Your task to perform on an android device: open chrome privacy settings Image 0: 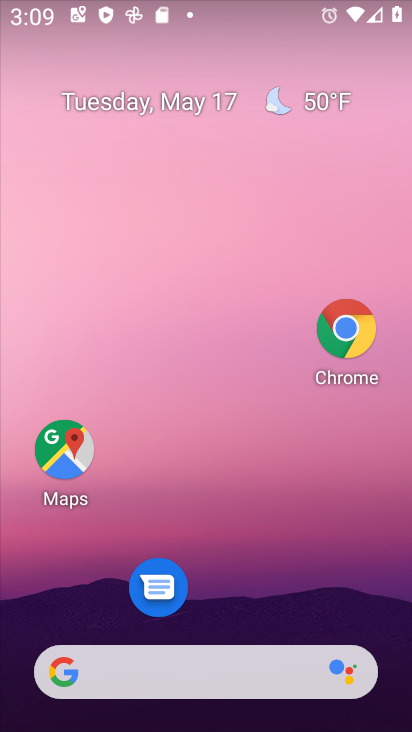
Step 0: click (339, 378)
Your task to perform on an android device: open chrome privacy settings Image 1: 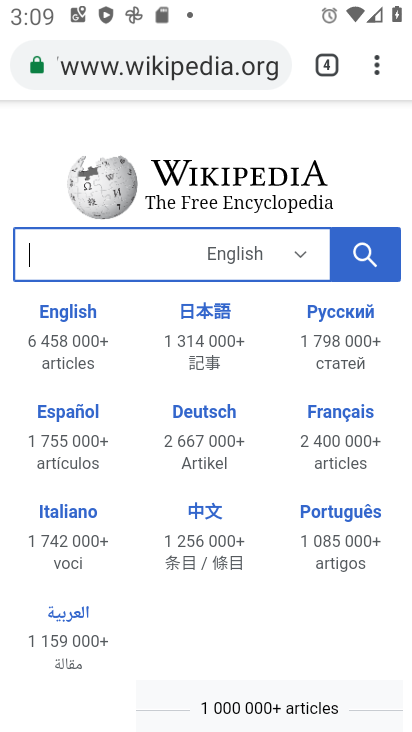
Step 1: click (388, 60)
Your task to perform on an android device: open chrome privacy settings Image 2: 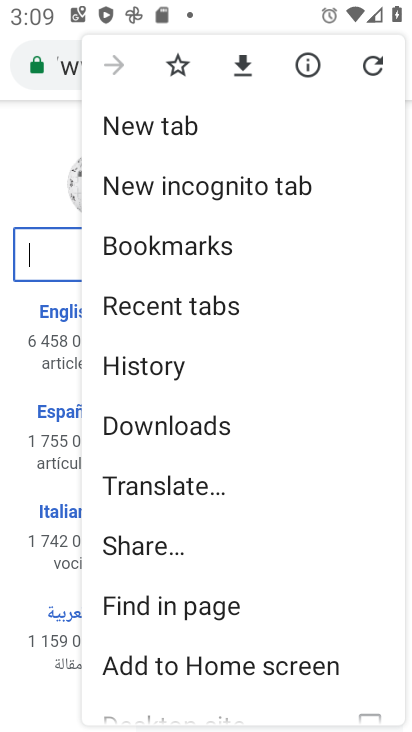
Step 2: drag from (199, 548) to (180, 324)
Your task to perform on an android device: open chrome privacy settings Image 3: 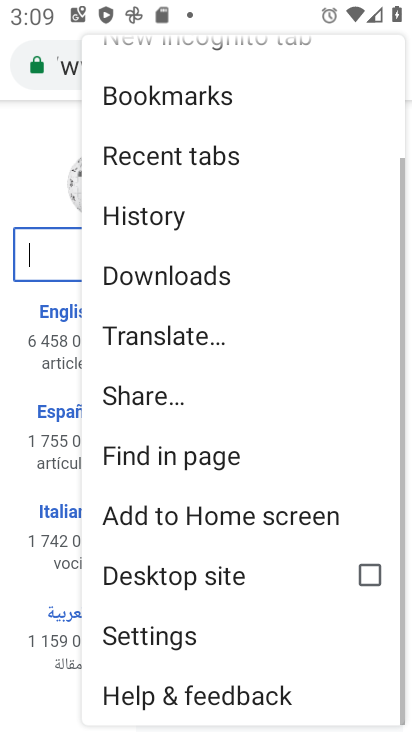
Step 3: click (202, 645)
Your task to perform on an android device: open chrome privacy settings Image 4: 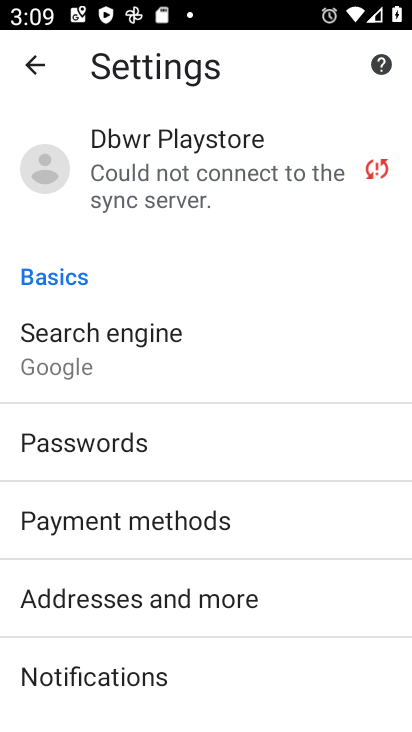
Step 4: drag from (202, 645) to (157, 210)
Your task to perform on an android device: open chrome privacy settings Image 5: 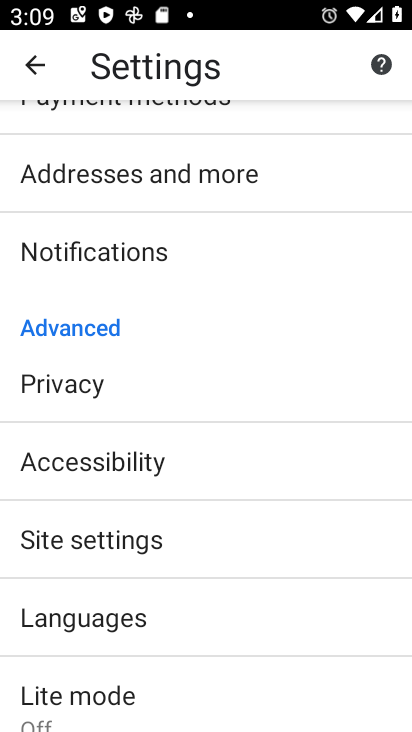
Step 5: click (140, 372)
Your task to perform on an android device: open chrome privacy settings Image 6: 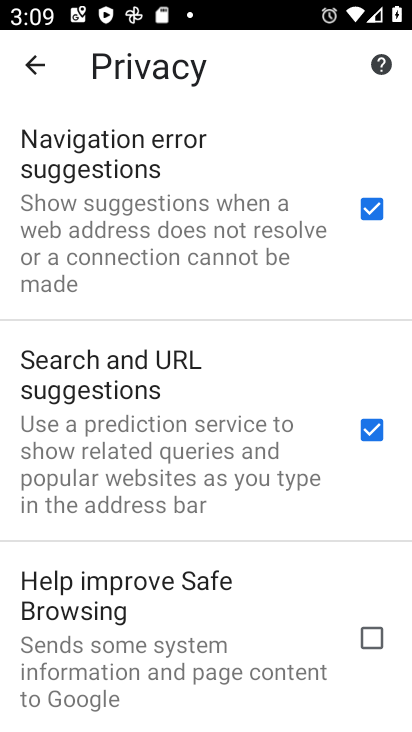
Step 6: task complete